Your task to perform on an android device: Is it going to rain today? Image 0: 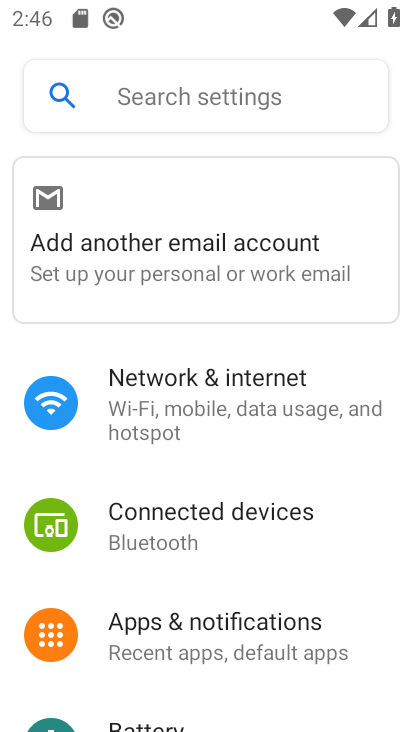
Step 0: drag from (187, 693) to (194, 323)
Your task to perform on an android device: Is it going to rain today? Image 1: 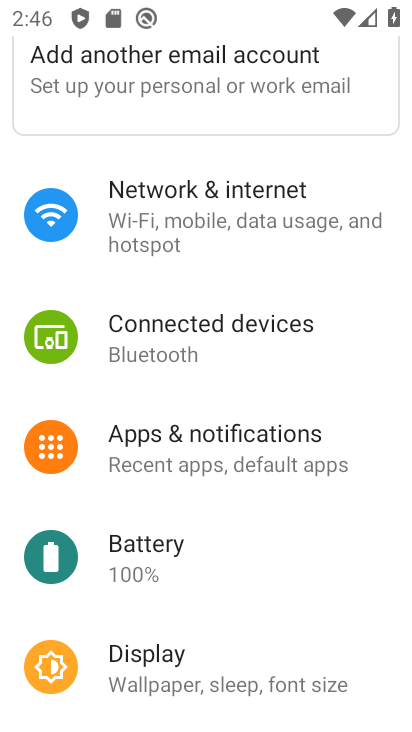
Step 1: press home button
Your task to perform on an android device: Is it going to rain today? Image 2: 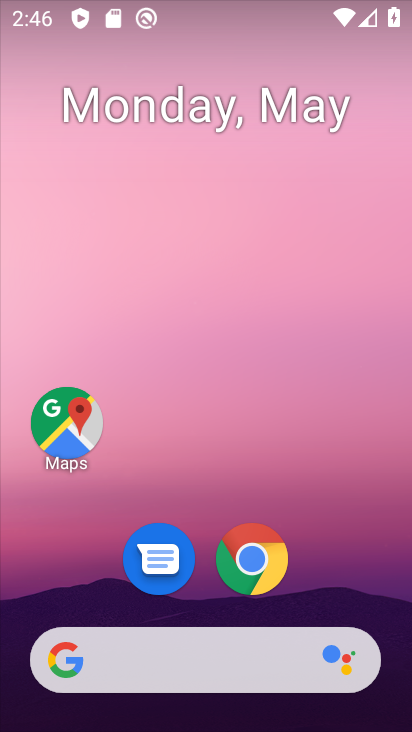
Step 2: drag from (187, 493) to (187, 340)
Your task to perform on an android device: Is it going to rain today? Image 3: 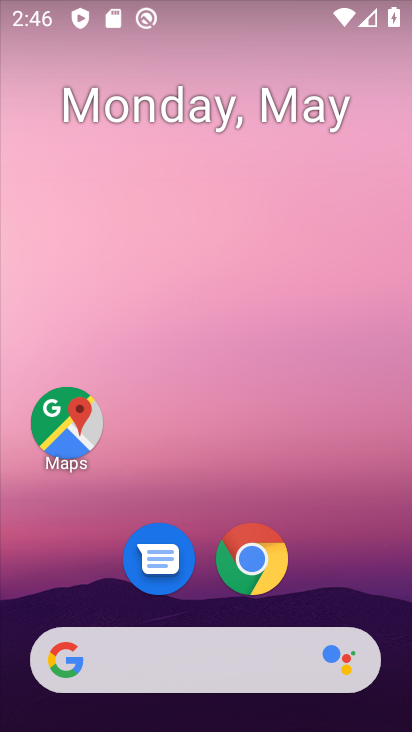
Step 3: drag from (199, 632) to (199, 266)
Your task to perform on an android device: Is it going to rain today? Image 4: 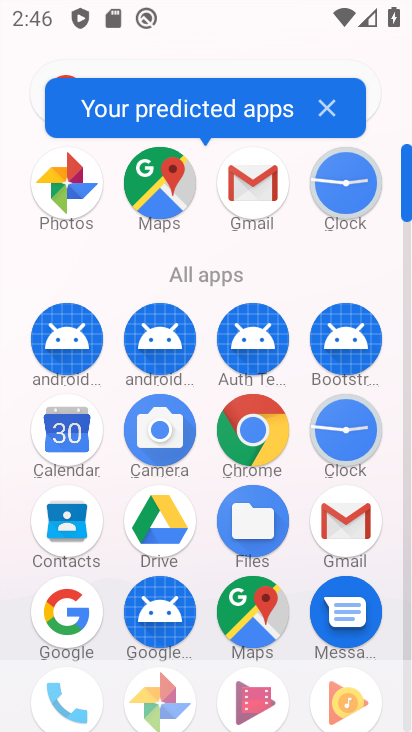
Step 4: click (69, 626)
Your task to perform on an android device: Is it going to rain today? Image 5: 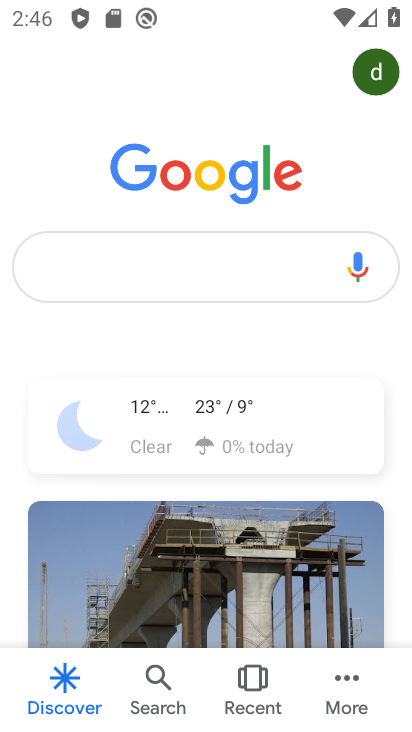
Step 5: click (192, 259)
Your task to perform on an android device: Is it going to rain today? Image 6: 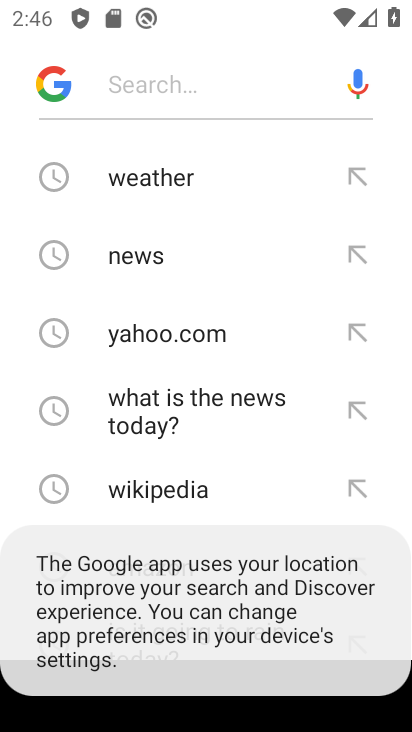
Step 6: drag from (152, 492) to (170, 229)
Your task to perform on an android device: Is it going to rain today? Image 7: 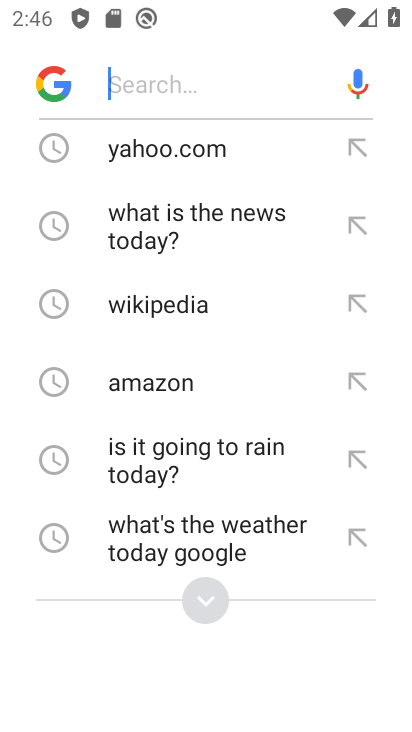
Step 7: click (179, 464)
Your task to perform on an android device: Is it going to rain today? Image 8: 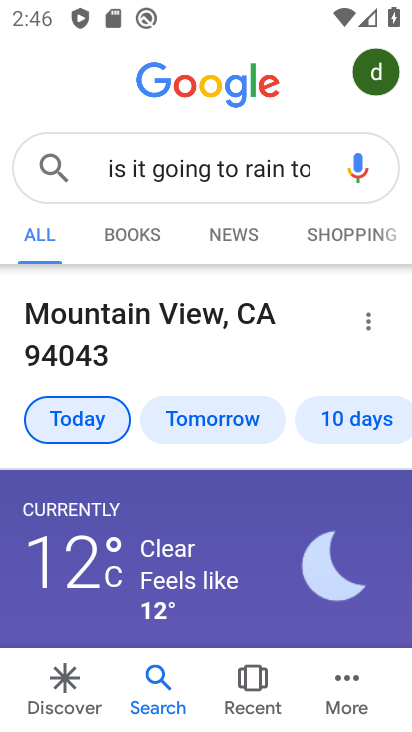
Step 8: task complete